Your task to perform on an android device: Open Google Image 0: 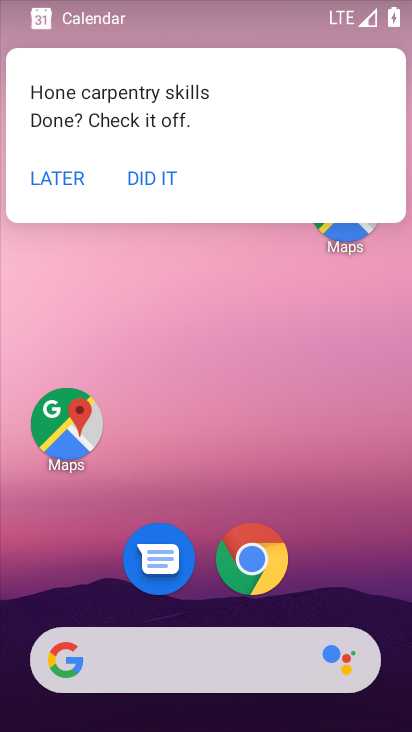
Step 0: click (42, 177)
Your task to perform on an android device: Open Google Image 1: 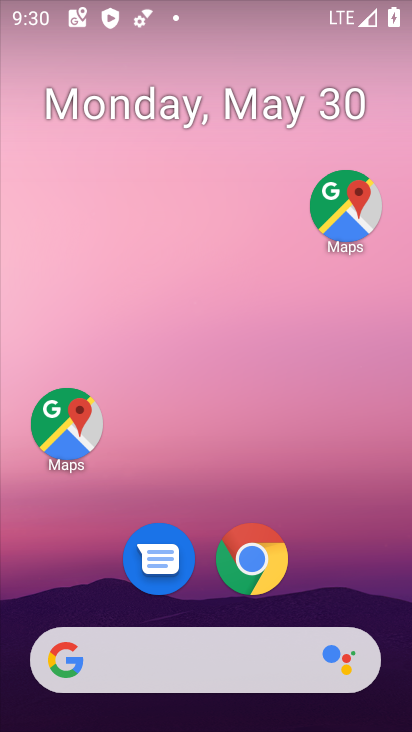
Step 1: drag from (318, 506) to (230, 46)
Your task to perform on an android device: Open Google Image 2: 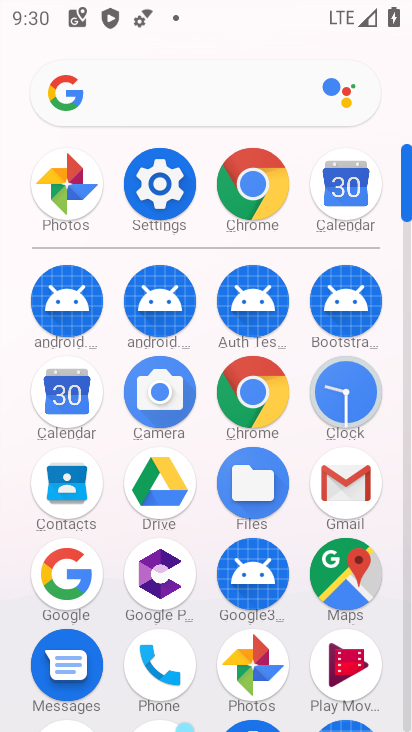
Step 2: click (69, 579)
Your task to perform on an android device: Open Google Image 3: 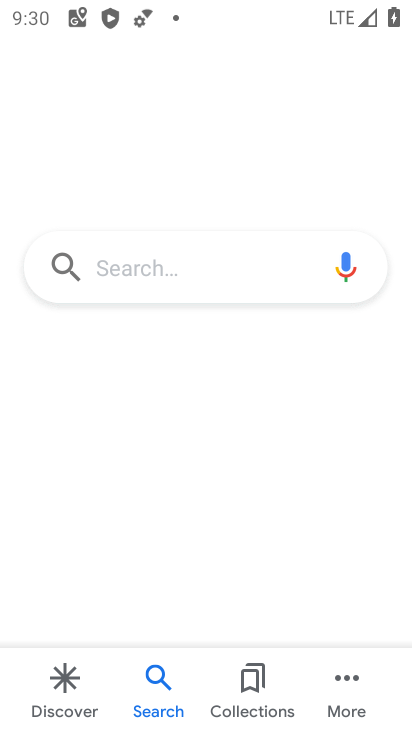
Step 3: task complete